Your task to perform on an android device: open app "Microsoft Authenticator" (install if not already installed) and go to login screen Image 0: 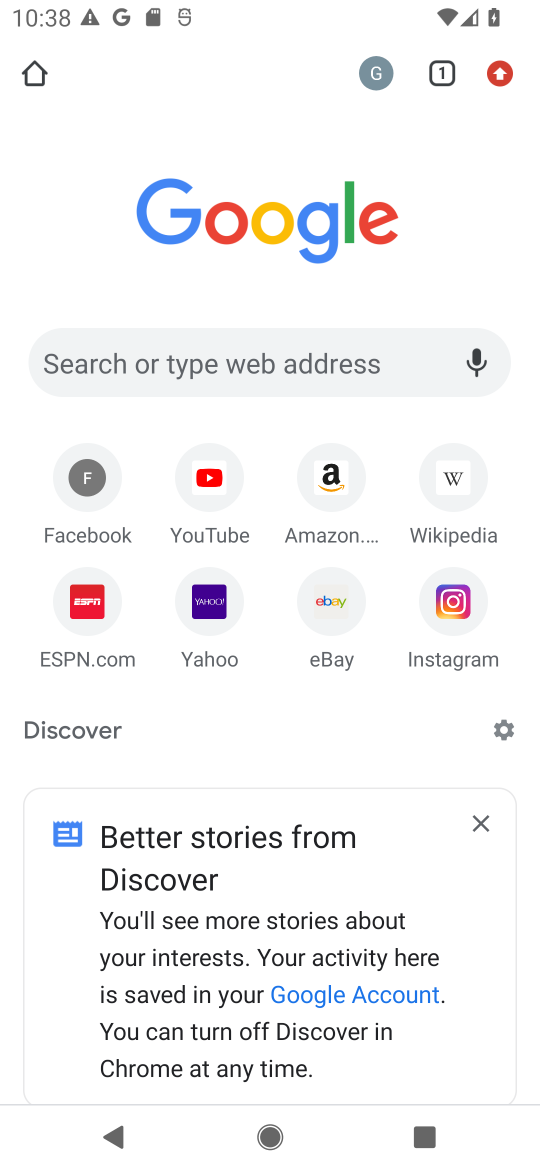
Step 0: press home button
Your task to perform on an android device: open app "Microsoft Authenticator" (install if not already installed) and go to login screen Image 1: 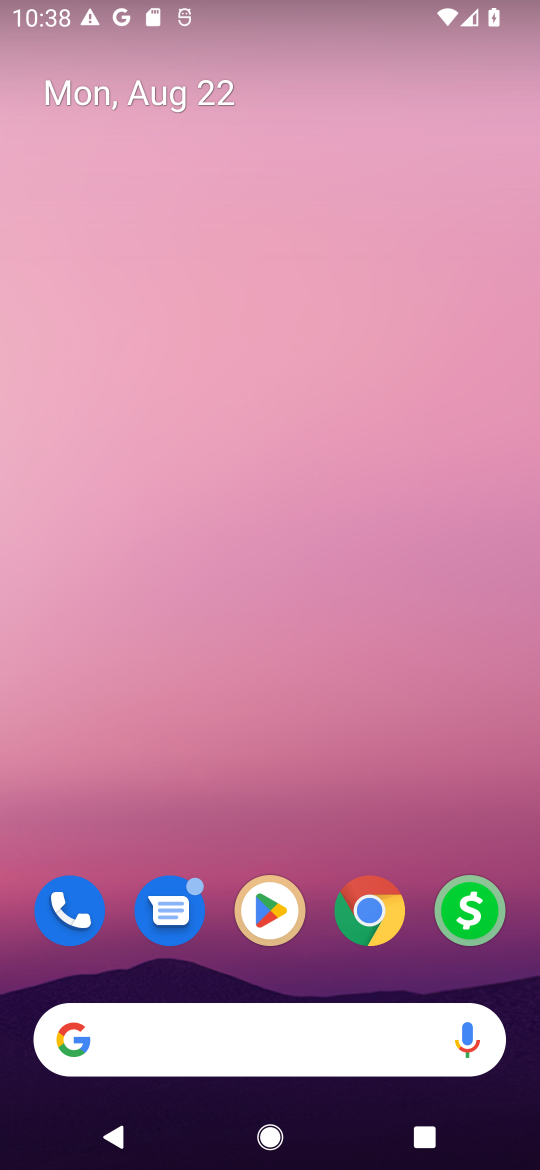
Step 1: click (245, 919)
Your task to perform on an android device: open app "Microsoft Authenticator" (install if not already installed) and go to login screen Image 2: 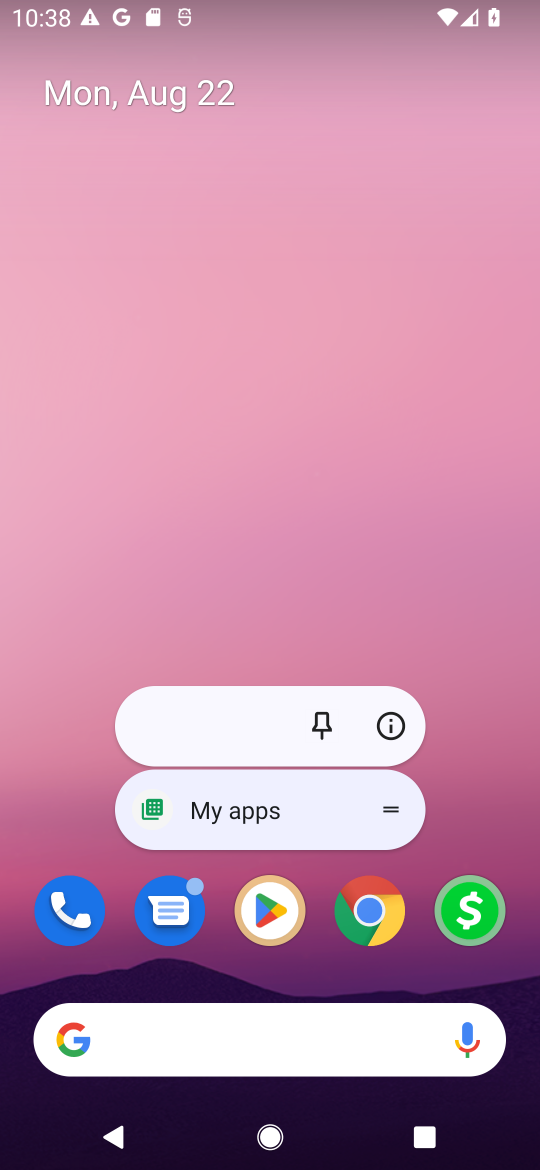
Step 2: click (265, 929)
Your task to perform on an android device: open app "Microsoft Authenticator" (install if not already installed) and go to login screen Image 3: 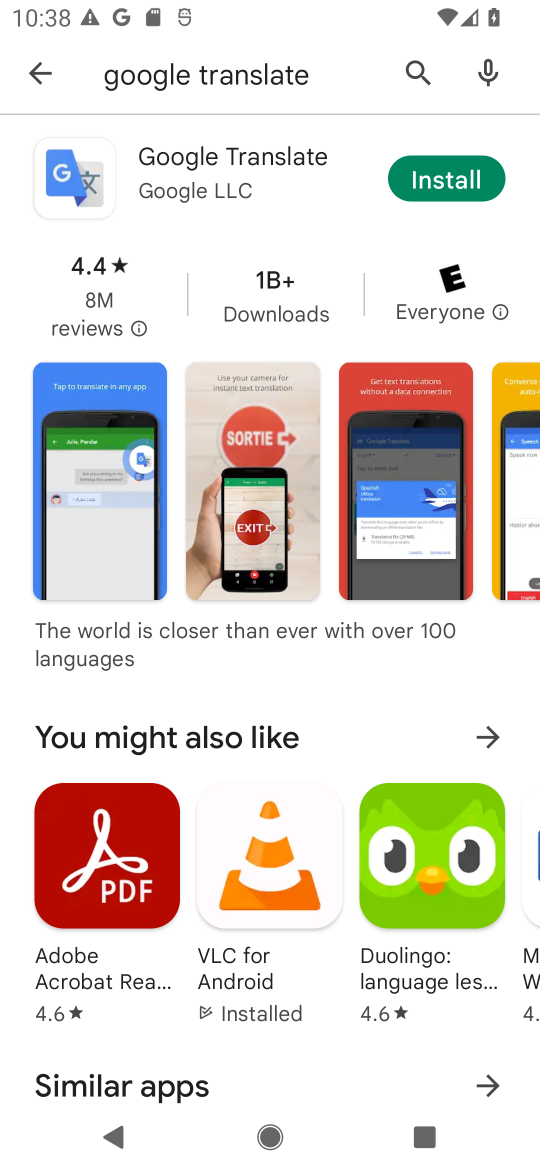
Step 3: click (430, 69)
Your task to perform on an android device: open app "Microsoft Authenticator" (install if not already installed) and go to login screen Image 4: 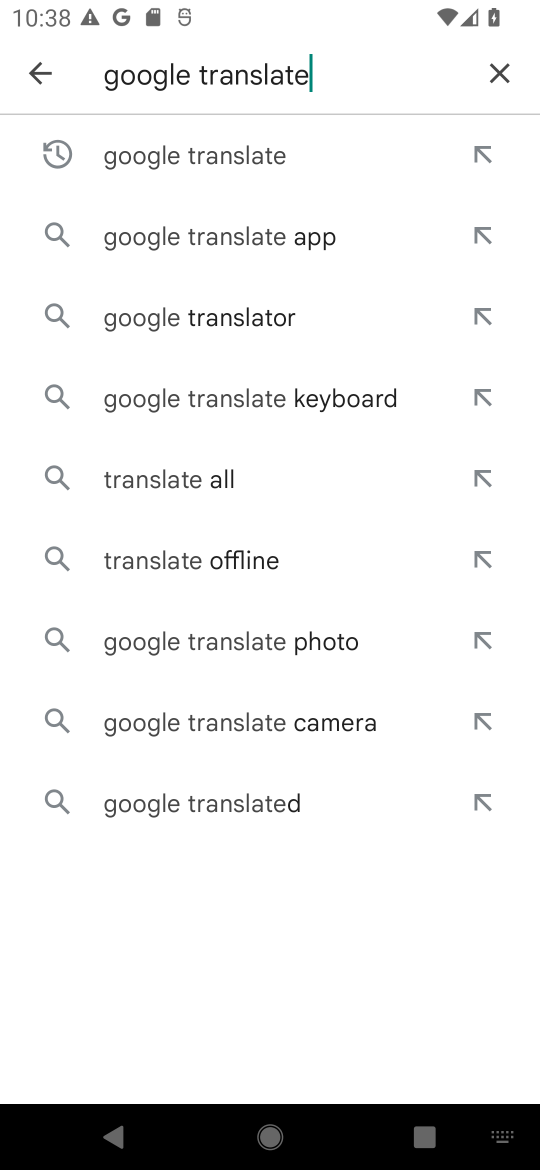
Step 4: click (497, 69)
Your task to perform on an android device: open app "Microsoft Authenticator" (install if not already installed) and go to login screen Image 5: 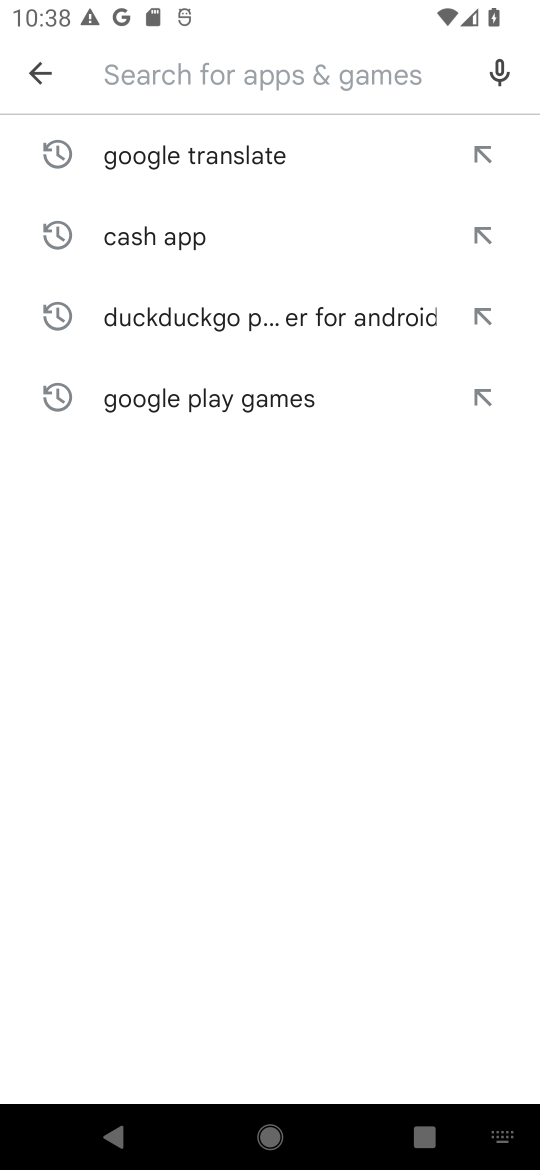
Step 5: type "Microsoft Authenticator"
Your task to perform on an android device: open app "Microsoft Authenticator" (install if not already installed) and go to login screen Image 6: 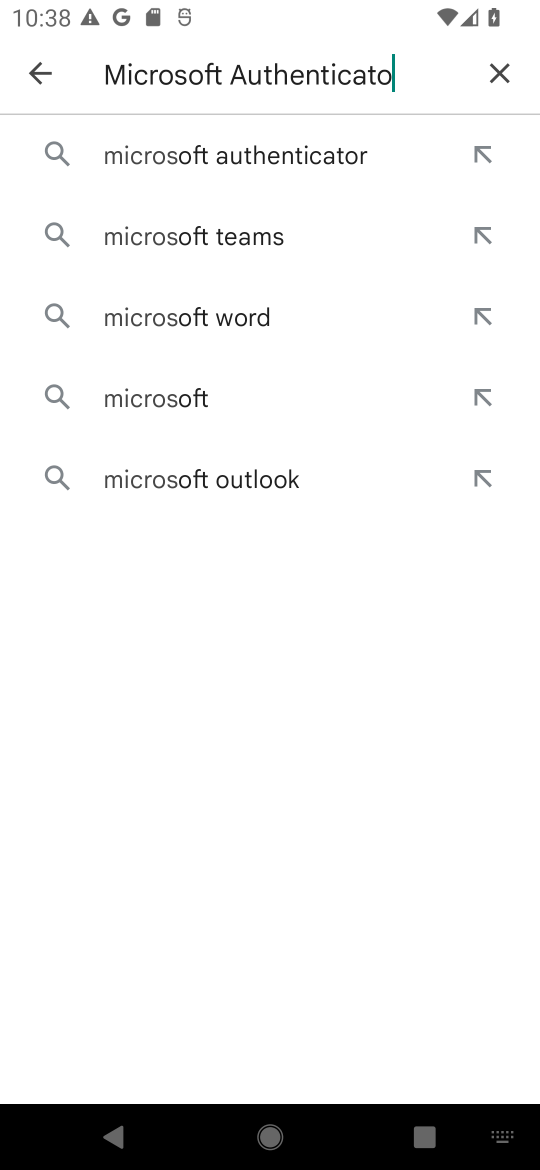
Step 6: type ""
Your task to perform on an android device: open app "Microsoft Authenticator" (install if not already installed) and go to login screen Image 7: 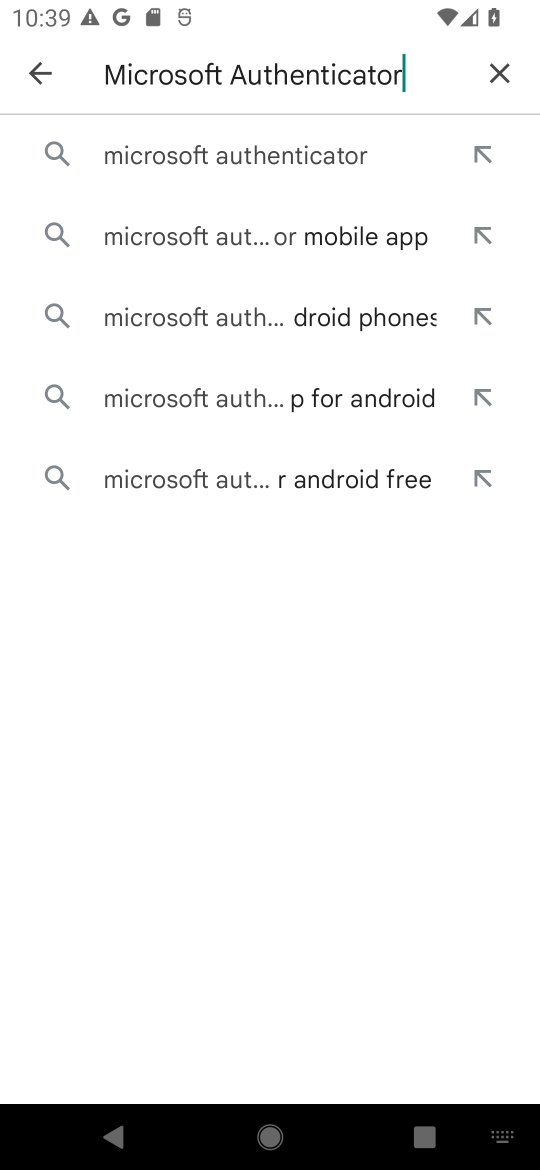
Step 7: click (292, 140)
Your task to perform on an android device: open app "Microsoft Authenticator" (install if not already installed) and go to login screen Image 8: 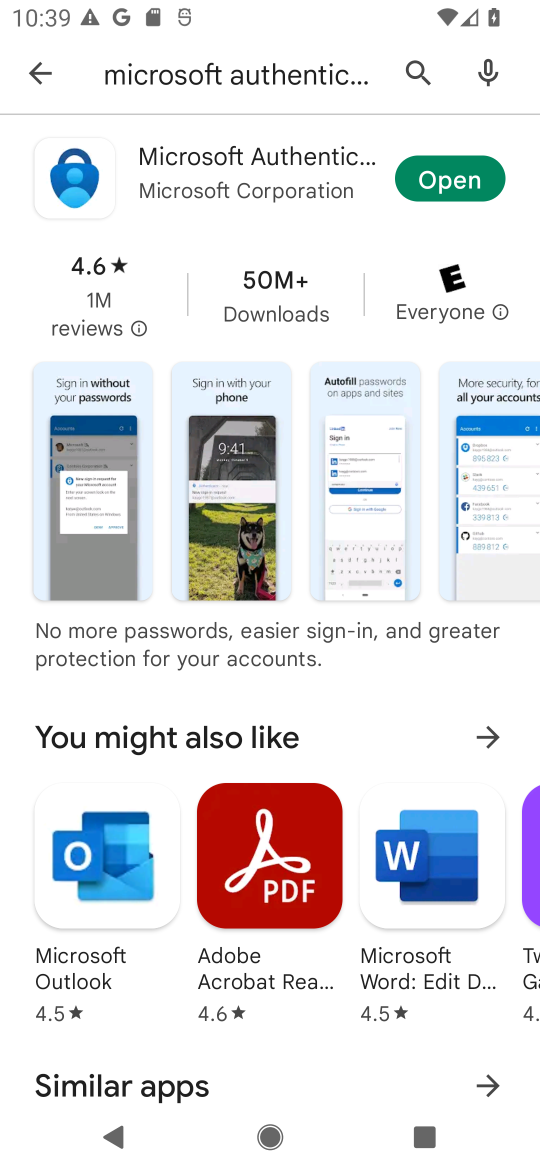
Step 8: click (408, 176)
Your task to perform on an android device: open app "Microsoft Authenticator" (install if not already installed) and go to login screen Image 9: 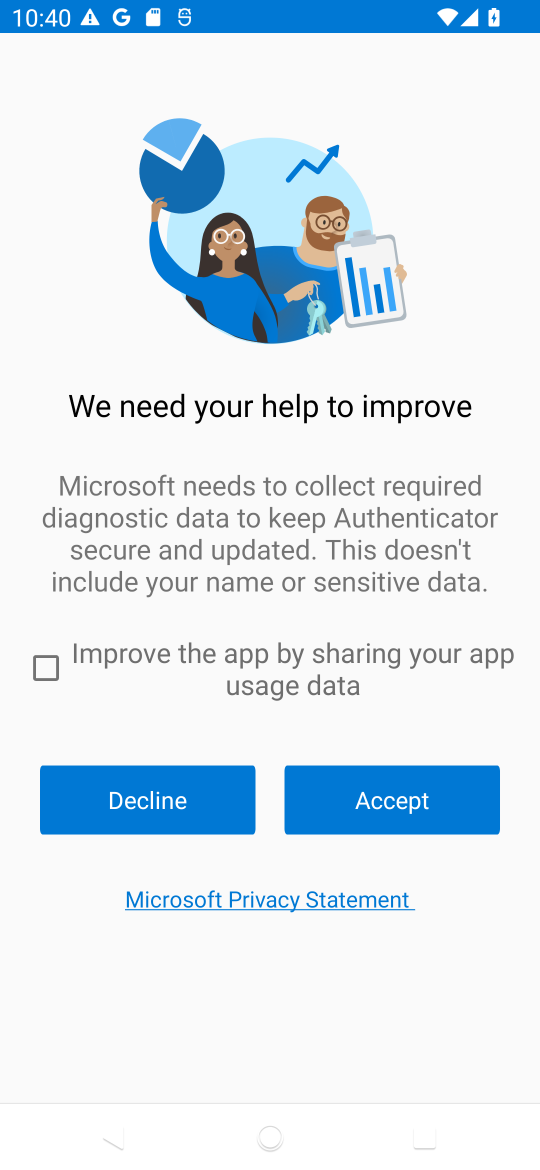
Step 9: task complete